Your task to perform on an android device: Go to network settings Image 0: 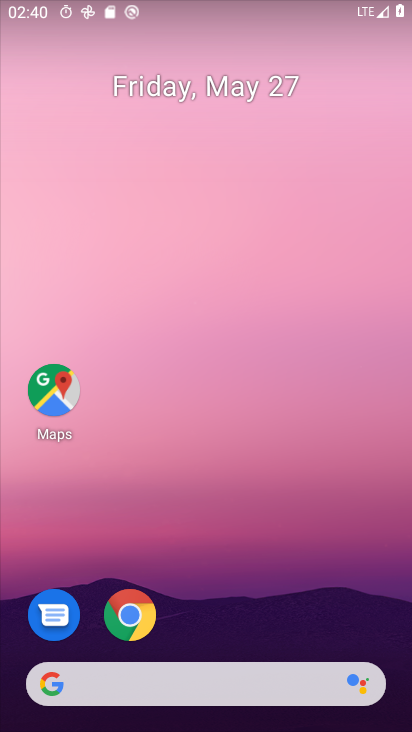
Step 0: drag from (374, 628) to (366, 109)
Your task to perform on an android device: Go to network settings Image 1: 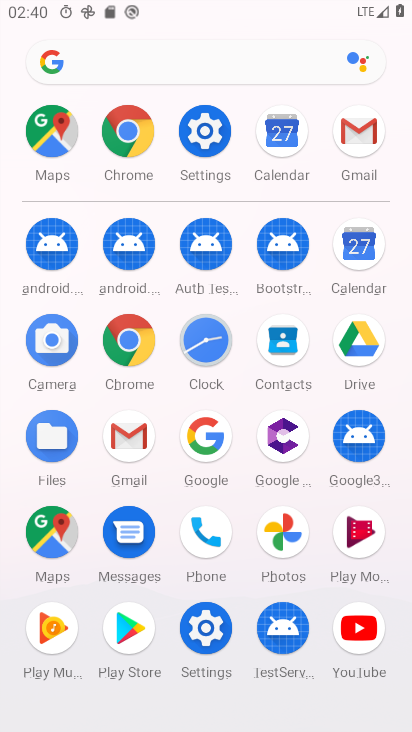
Step 1: click (218, 133)
Your task to perform on an android device: Go to network settings Image 2: 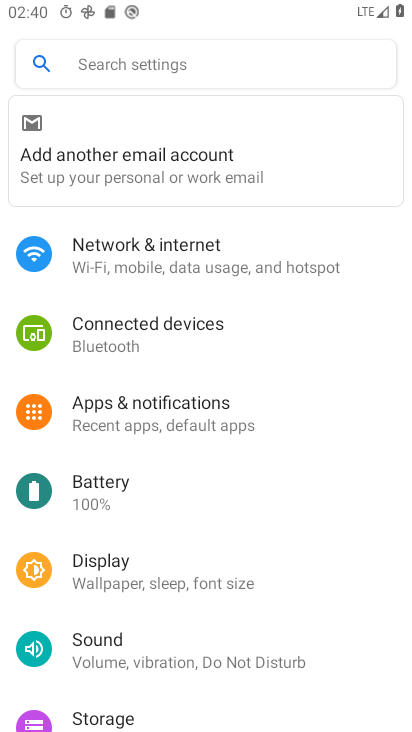
Step 2: drag from (337, 524) to (342, 391)
Your task to perform on an android device: Go to network settings Image 3: 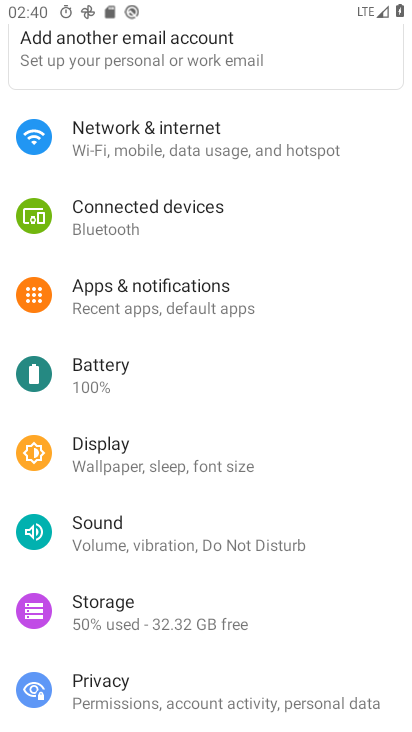
Step 3: drag from (336, 535) to (348, 399)
Your task to perform on an android device: Go to network settings Image 4: 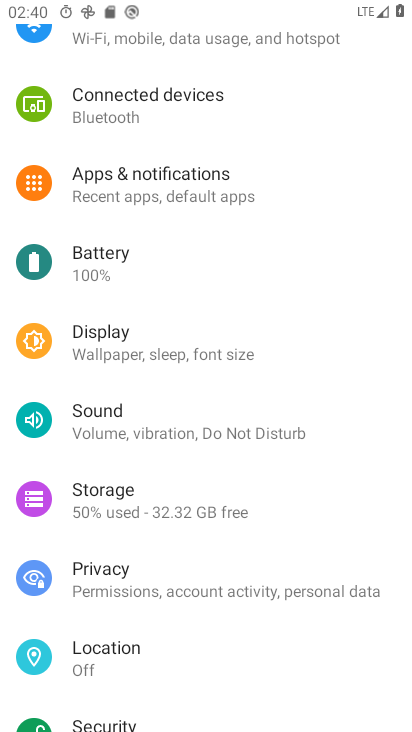
Step 4: drag from (350, 520) to (355, 436)
Your task to perform on an android device: Go to network settings Image 5: 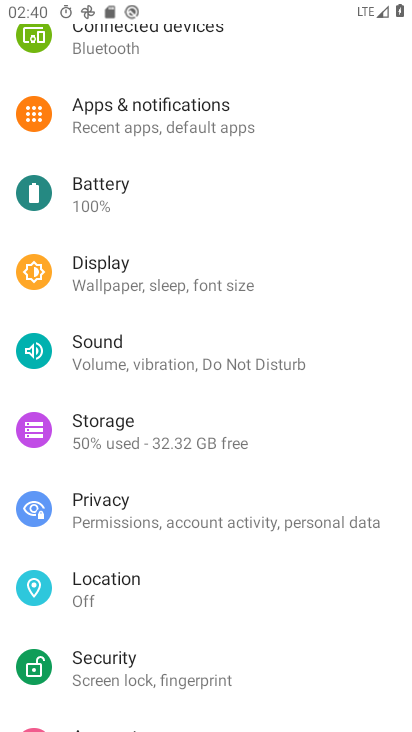
Step 5: drag from (351, 573) to (357, 469)
Your task to perform on an android device: Go to network settings Image 6: 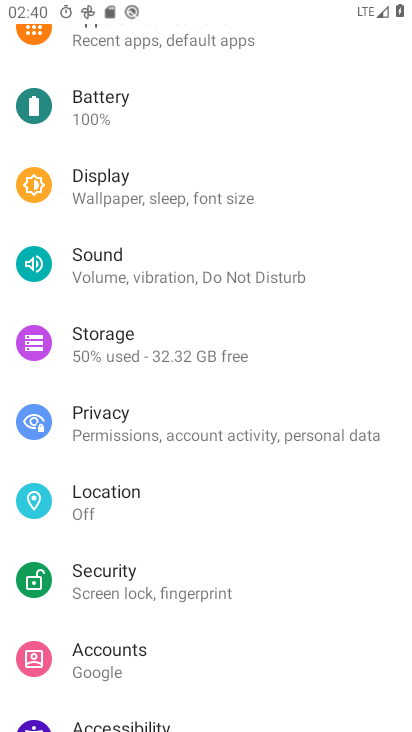
Step 6: drag from (357, 558) to (361, 449)
Your task to perform on an android device: Go to network settings Image 7: 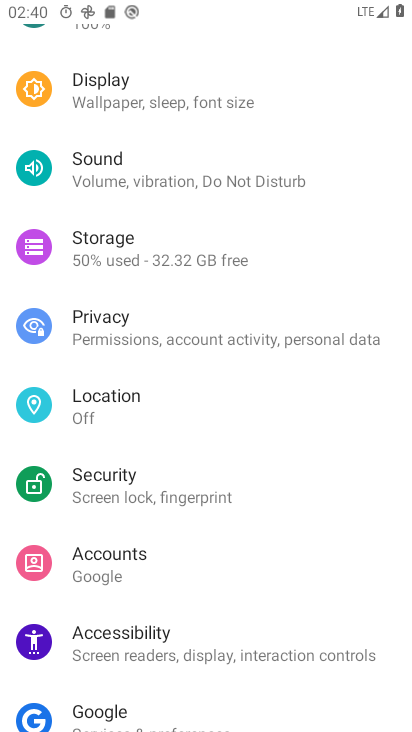
Step 7: drag from (359, 544) to (360, 461)
Your task to perform on an android device: Go to network settings Image 8: 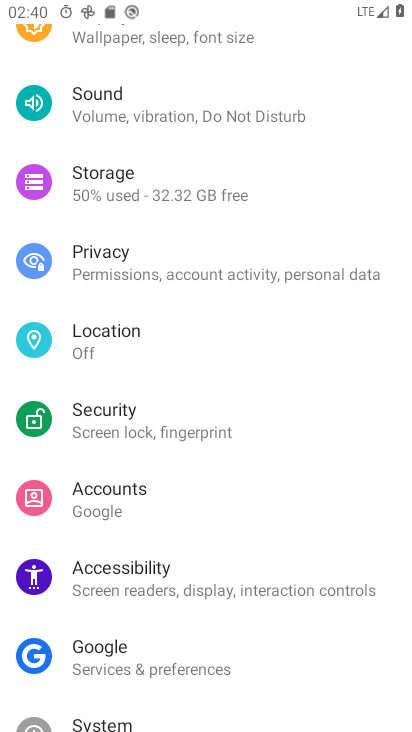
Step 8: drag from (346, 593) to (351, 485)
Your task to perform on an android device: Go to network settings Image 9: 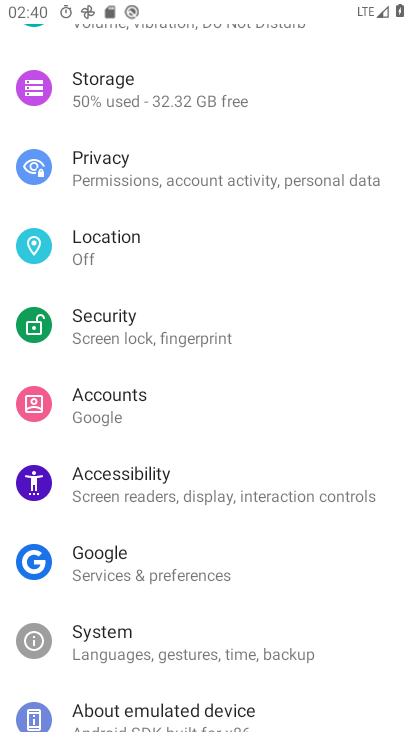
Step 9: drag from (342, 615) to (342, 487)
Your task to perform on an android device: Go to network settings Image 10: 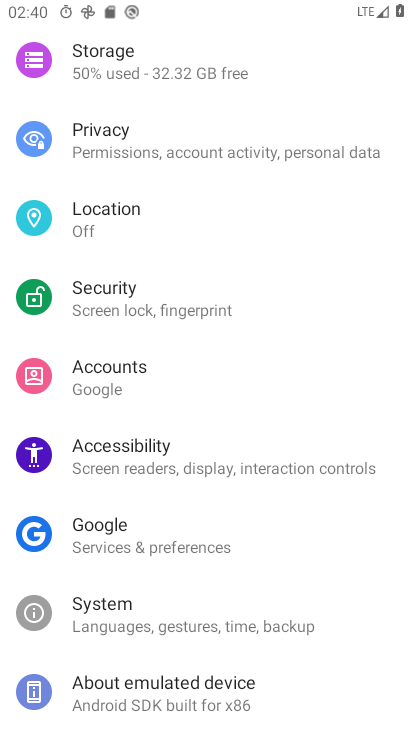
Step 10: drag from (345, 383) to (338, 471)
Your task to perform on an android device: Go to network settings Image 11: 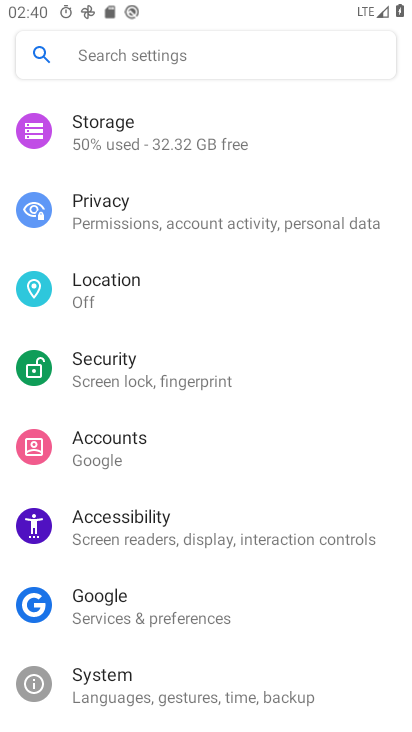
Step 11: drag from (339, 349) to (324, 465)
Your task to perform on an android device: Go to network settings Image 12: 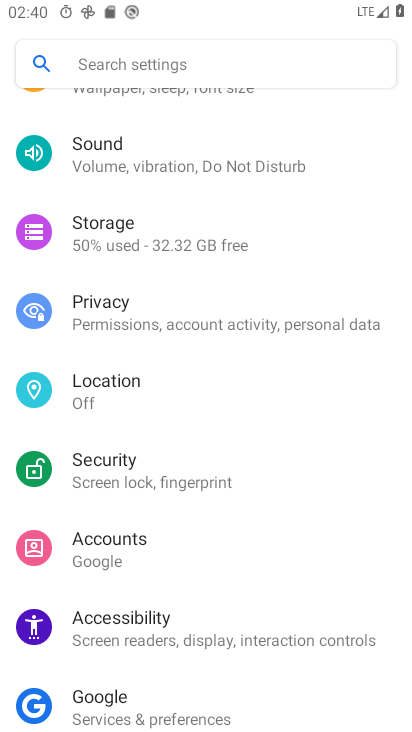
Step 12: drag from (366, 280) to (355, 387)
Your task to perform on an android device: Go to network settings Image 13: 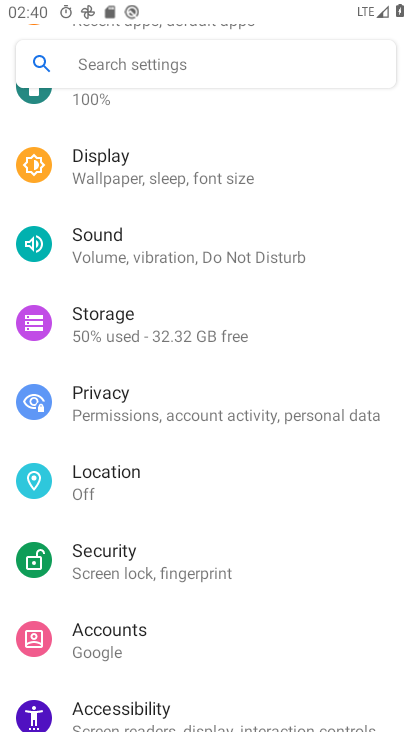
Step 13: drag from (361, 281) to (359, 363)
Your task to perform on an android device: Go to network settings Image 14: 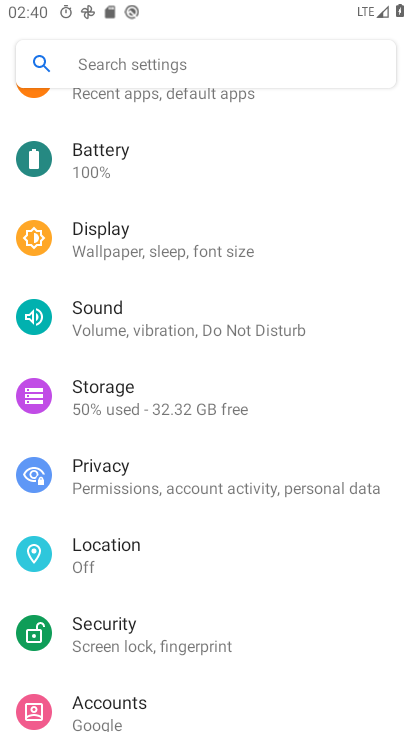
Step 14: drag from (359, 301) to (355, 388)
Your task to perform on an android device: Go to network settings Image 15: 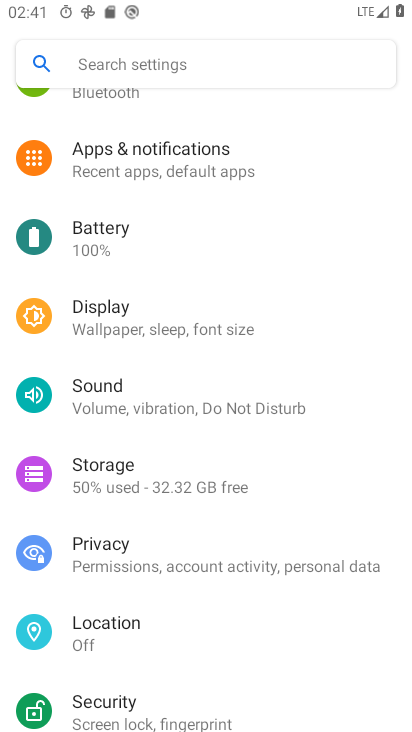
Step 15: drag from (356, 296) to (354, 398)
Your task to perform on an android device: Go to network settings Image 16: 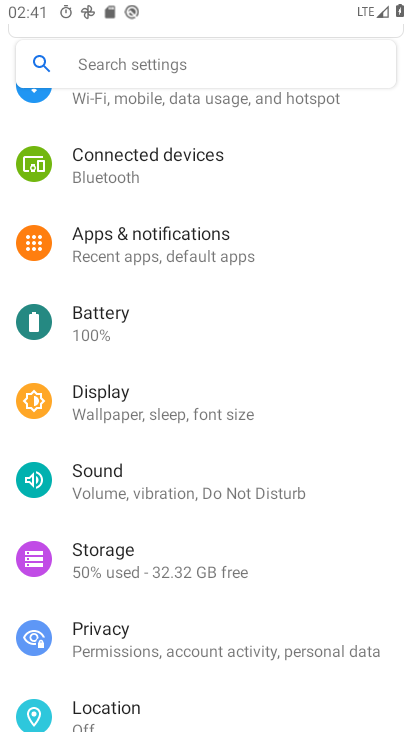
Step 16: drag from (357, 311) to (358, 411)
Your task to perform on an android device: Go to network settings Image 17: 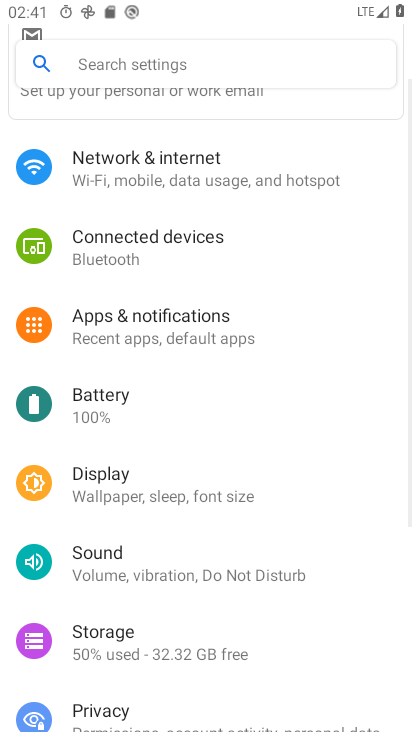
Step 17: drag from (358, 270) to (355, 413)
Your task to perform on an android device: Go to network settings Image 18: 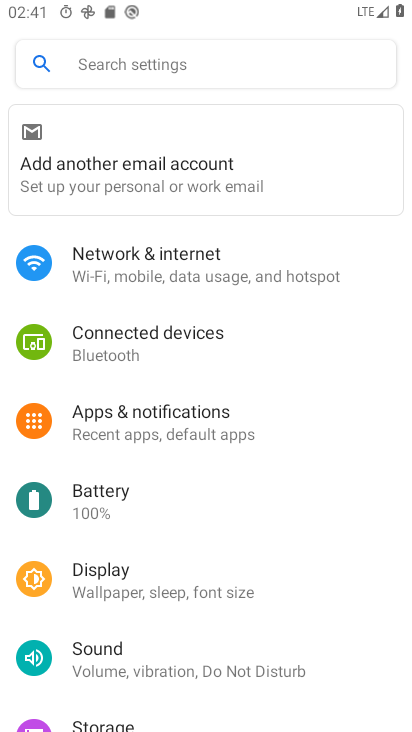
Step 18: drag from (353, 244) to (344, 399)
Your task to perform on an android device: Go to network settings Image 19: 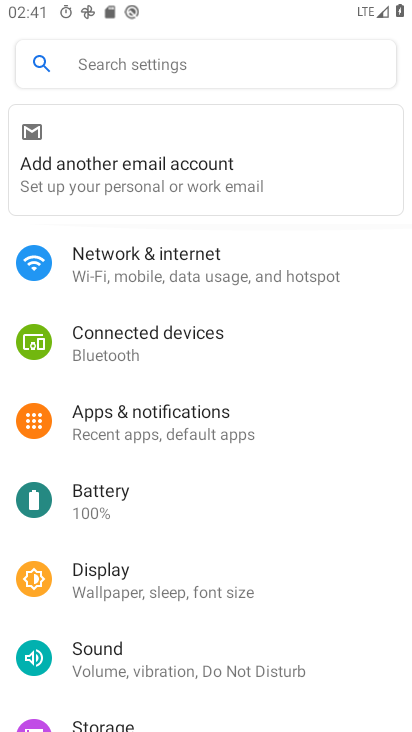
Step 19: click (317, 268)
Your task to perform on an android device: Go to network settings Image 20: 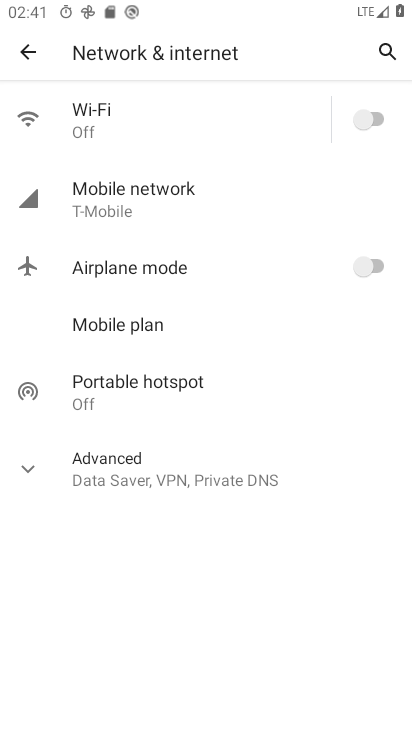
Step 20: task complete